Your task to perform on an android device: Show me the alarms in the clock app Image 0: 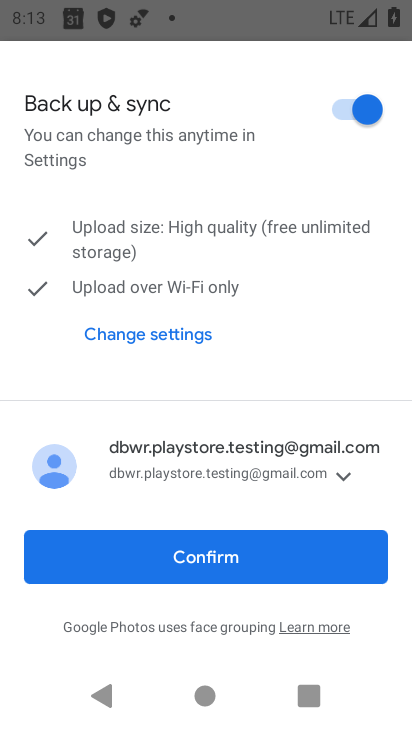
Step 0: press home button
Your task to perform on an android device: Show me the alarms in the clock app Image 1: 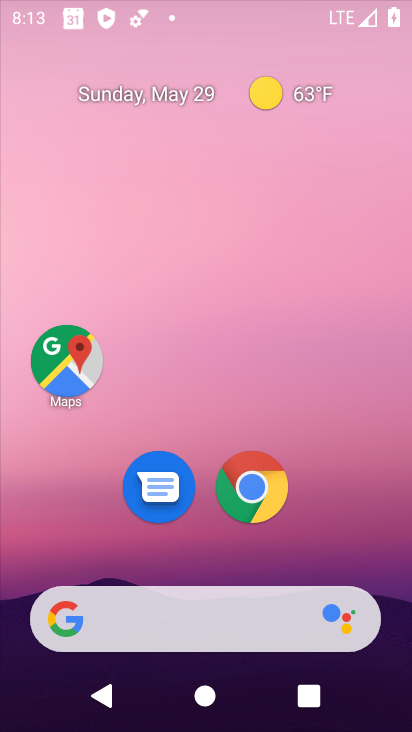
Step 1: drag from (200, 621) to (264, 110)
Your task to perform on an android device: Show me the alarms in the clock app Image 2: 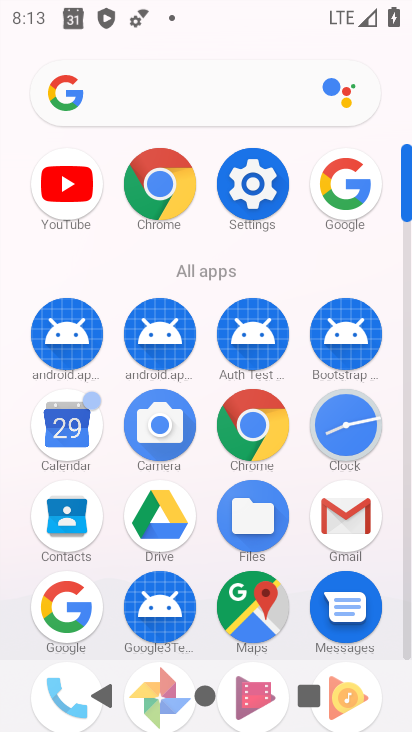
Step 2: drag from (208, 485) to (273, 141)
Your task to perform on an android device: Show me the alarms in the clock app Image 3: 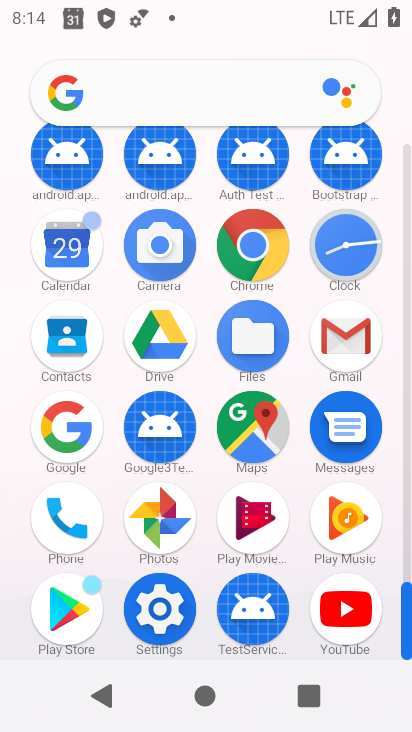
Step 3: click (354, 250)
Your task to perform on an android device: Show me the alarms in the clock app Image 4: 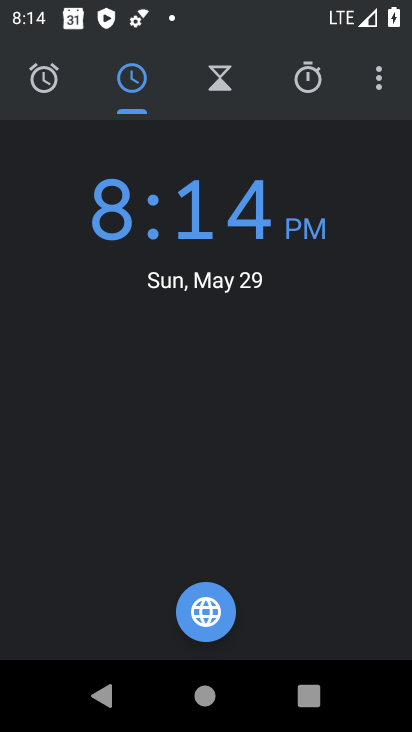
Step 4: click (60, 87)
Your task to perform on an android device: Show me the alarms in the clock app Image 5: 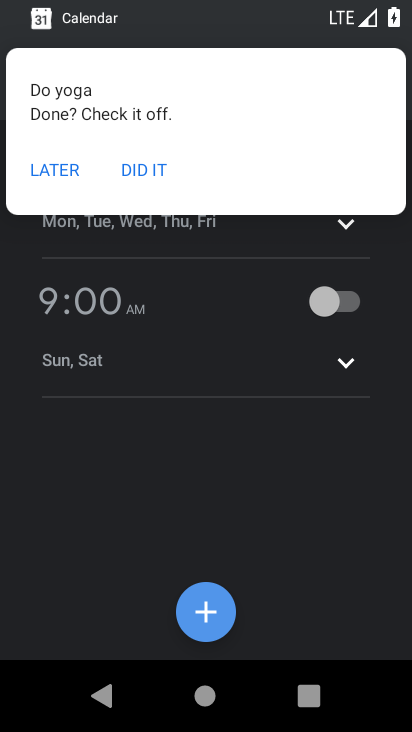
Step 5: task complete